Your task to perform on an android device: Add razer naga to the cart on target.com Image 0: 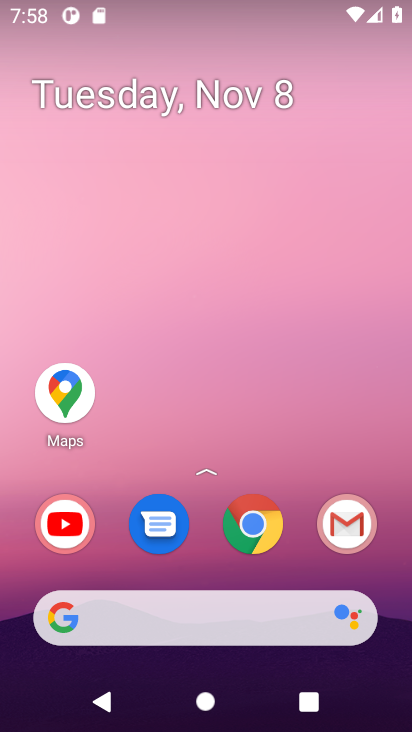
Step 0: click (262, 542)
Your task to perform on an android device: Add razer naga to the cart on target.com Image 1: 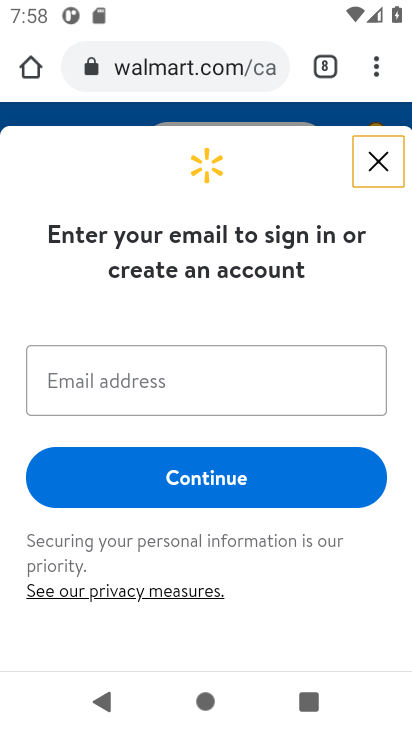
Step 1: click (185, 77)
Your task to perform on an android device: Add razer naga to the cart on target.com Image 2: 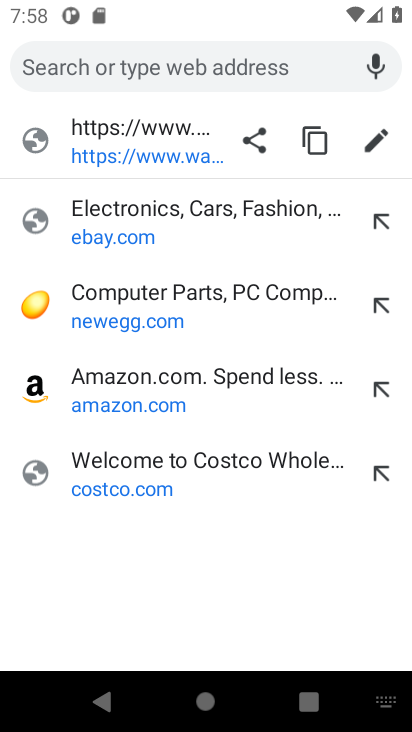
Step 2: type "target.com"
Your task to perform on an android device: Add razer naga to the cart on target.com Image 3: 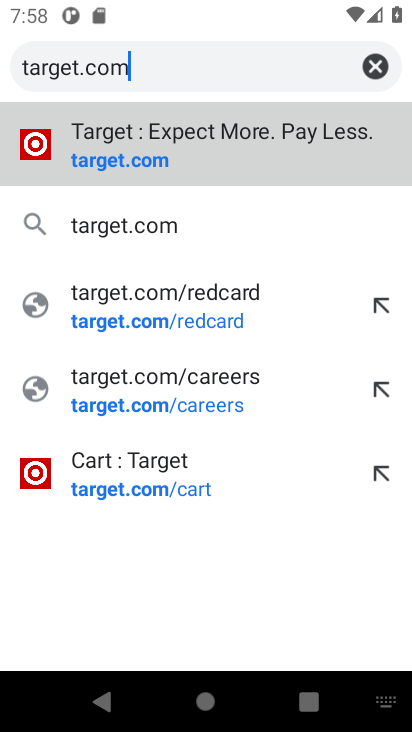
Step 3: click (140, 170)
Your task to perform on an android device: Add razer naga to the cart on target.com Image 4: 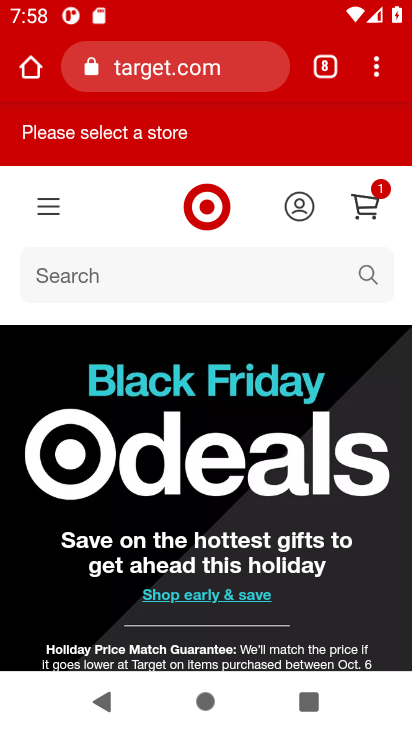
Step 4: click (369, 272)
Your task to perform on an android device: Add razer naga to the cart on target.com Image 5: 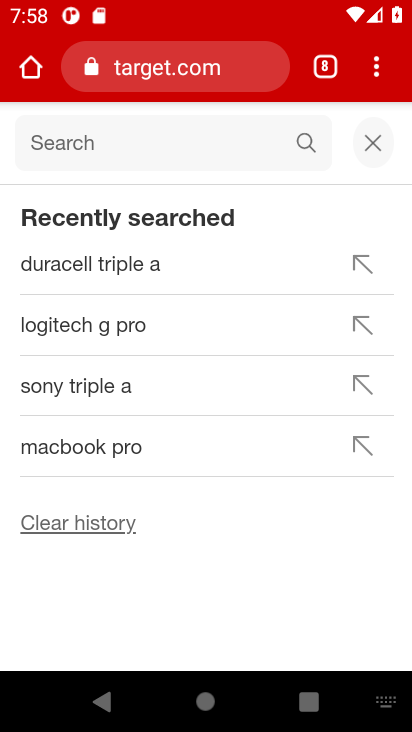
Step 5: type "razer naga"
Your task to perform on an android device: Add razer naga to the cart on target.com Image 6: 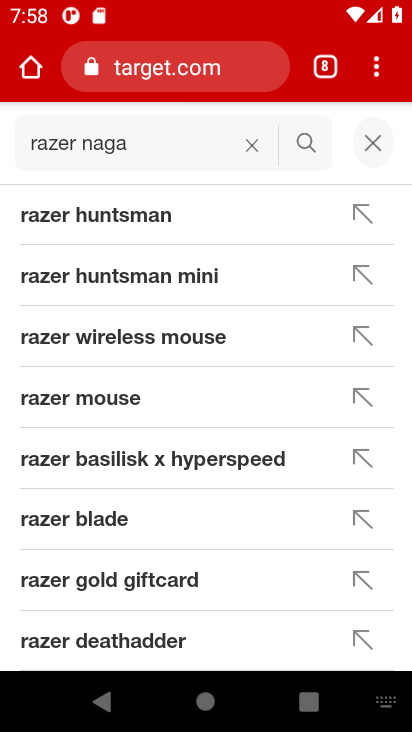
Step 6: click (306, 153)
Your task to perform on an android device: Add razer naga to the cart on target.com Image 7: 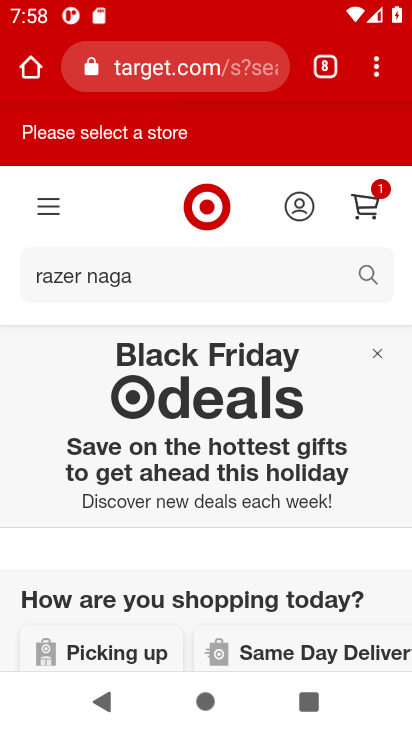
Step 7: task complete